Your task to perform on an android device: add a contact Image 0: 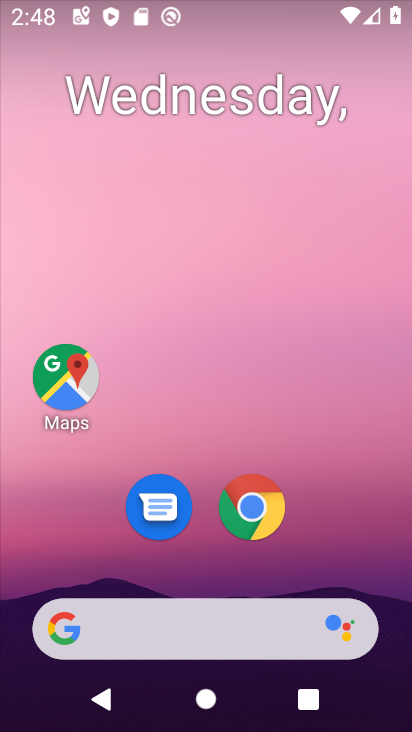
Step 0: drag from (337, 523) to (8, 6)
Your task to perform on an android device: add a contact Image 1: 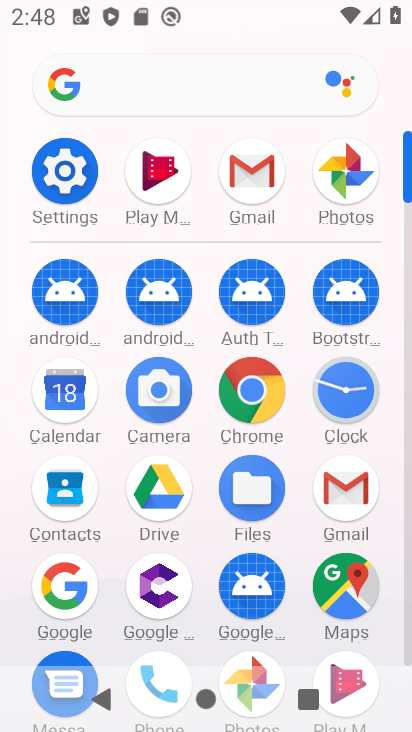
Step 1: click (64, 490)
Your task to perform on an android device: add a contact Image 2: 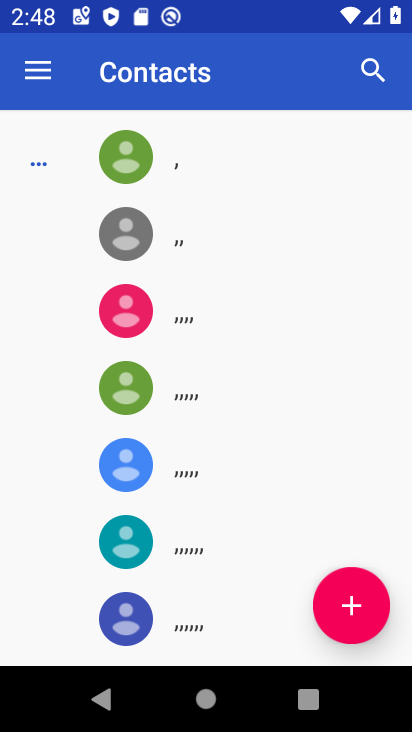
Step 2: click (364, 596)
Your task to perform on an android device: add a contact Image 3: 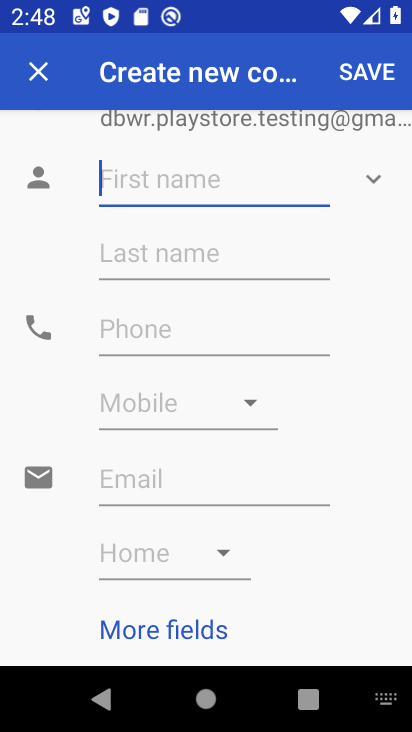
Step 3: click (169, 170)
Your task to perform on an android device: add a contact Image 4: 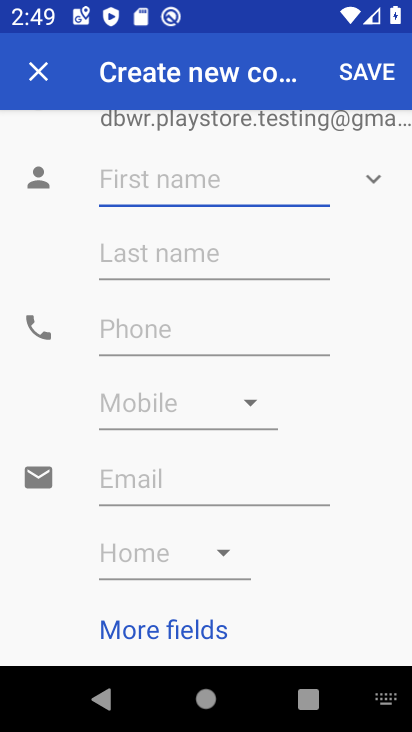
Step 4: type "siid"
Your task to perform on an android device: add a contact Image 5: 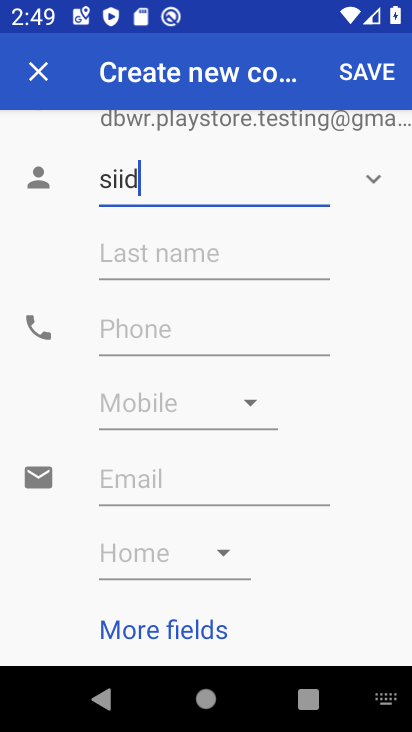
Step 5: click (131, 316)
Your task to perform on an android device: add a contact Image 6: 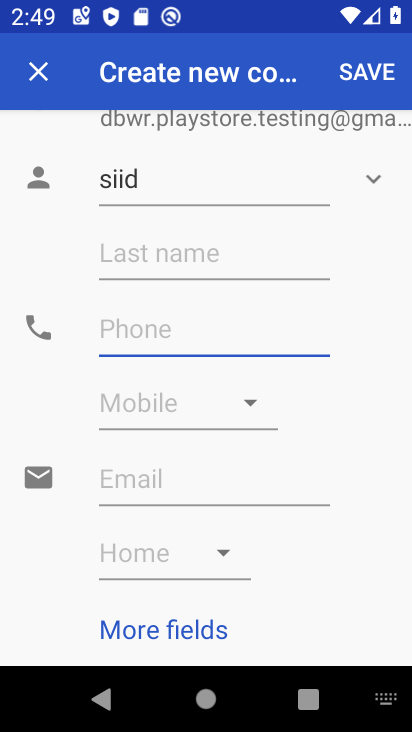
Step 6: type "9897695766"
Your task to perform on an android device: add a contact Image 7: 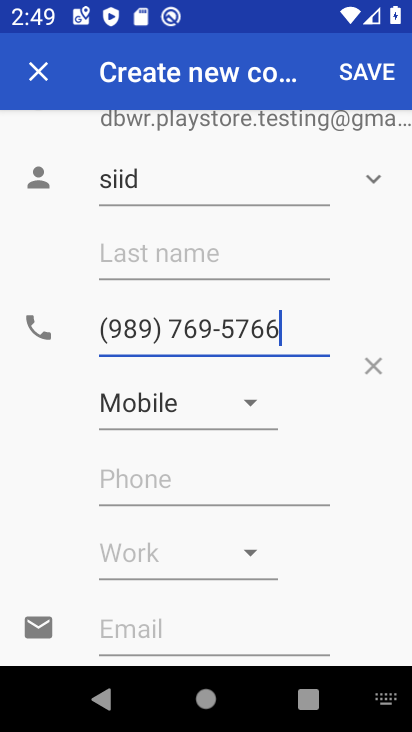
Step 7: click (368, 59)
Your task to perform on an android device: add a contact Image 8: 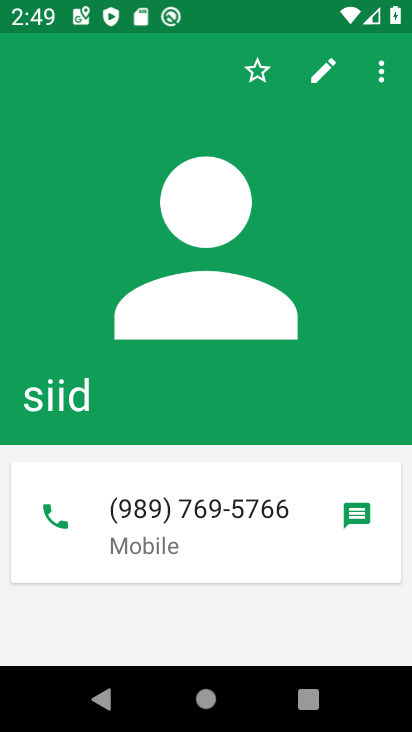
Step 8: task complete